Your task to perform on an android device: Open the stopwatch Image 0: 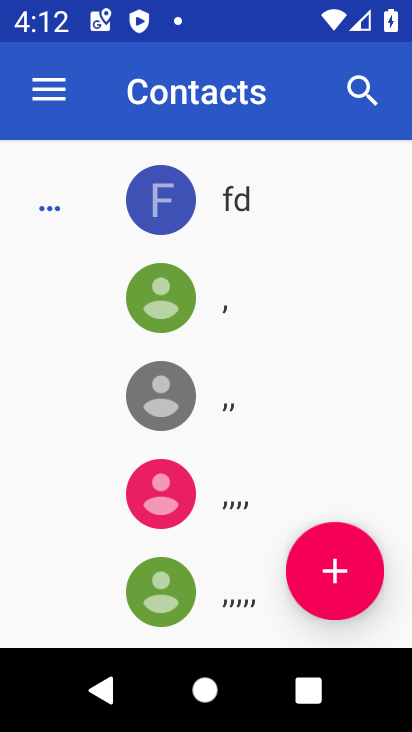
Step 0: press home button
Your task to perform on an android device: Open the stopwatch Image 1: 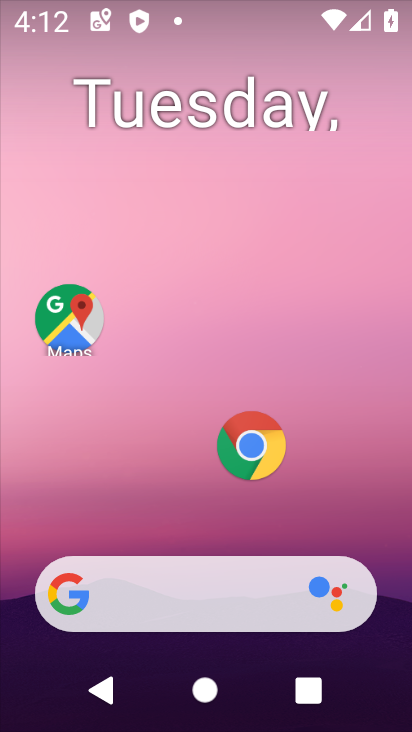
Step 1: click (258, 451)
Your task to perform on an android device: Open the stopwatch Image 2: 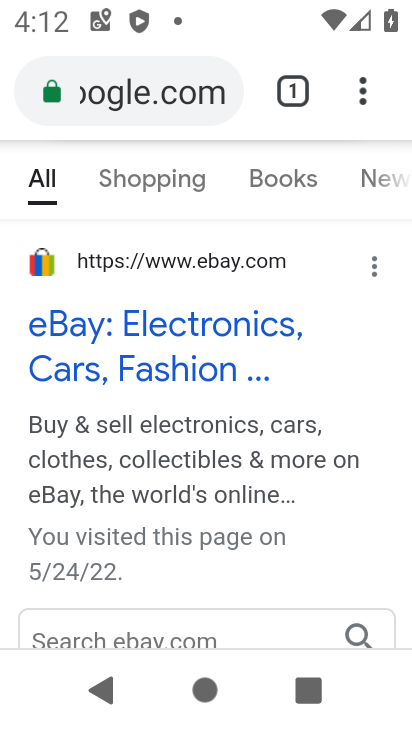
Step 2: task complete